Your task to perform on an android device: open app "LiveIn - Share Your Moment" (install if not already installed) Image 0: 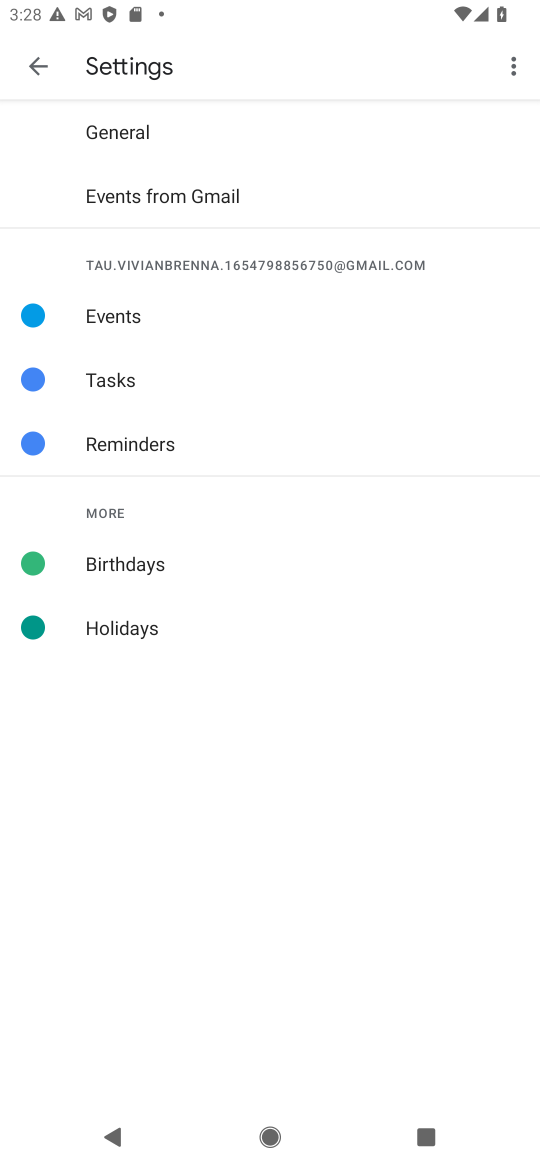
Step 0: press home button
Your task to perform on an android device: open app "LiveIn - Share Your Moment" (install if not already installed) Image 1: 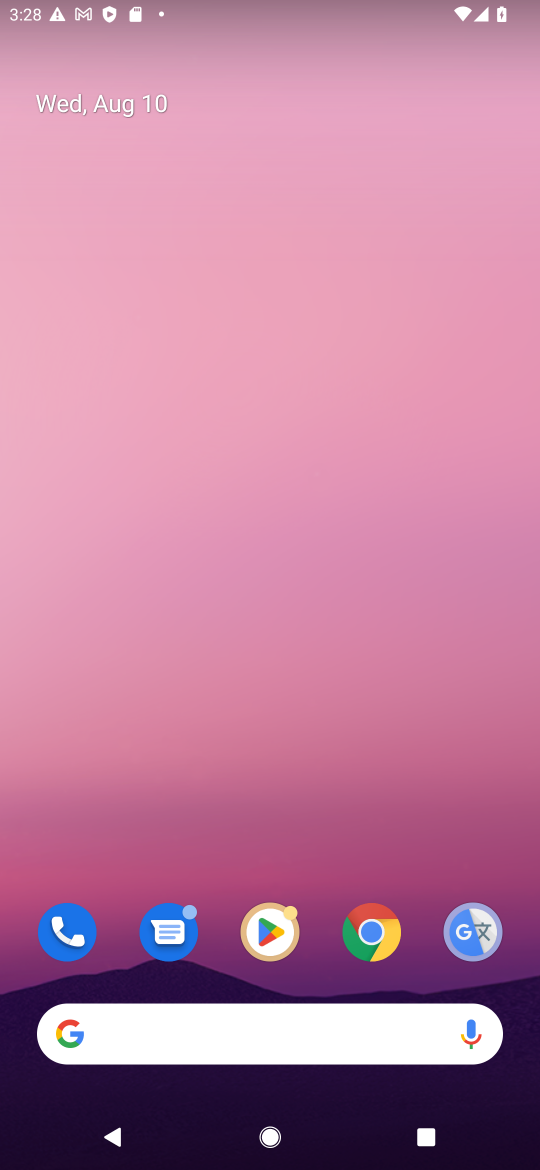
Step 1: drag from (272, 828) to (354, 180)
Your task to perform on an android device: open app "LiveIn - Share Your Moment" (install if not already installed) Image 2: 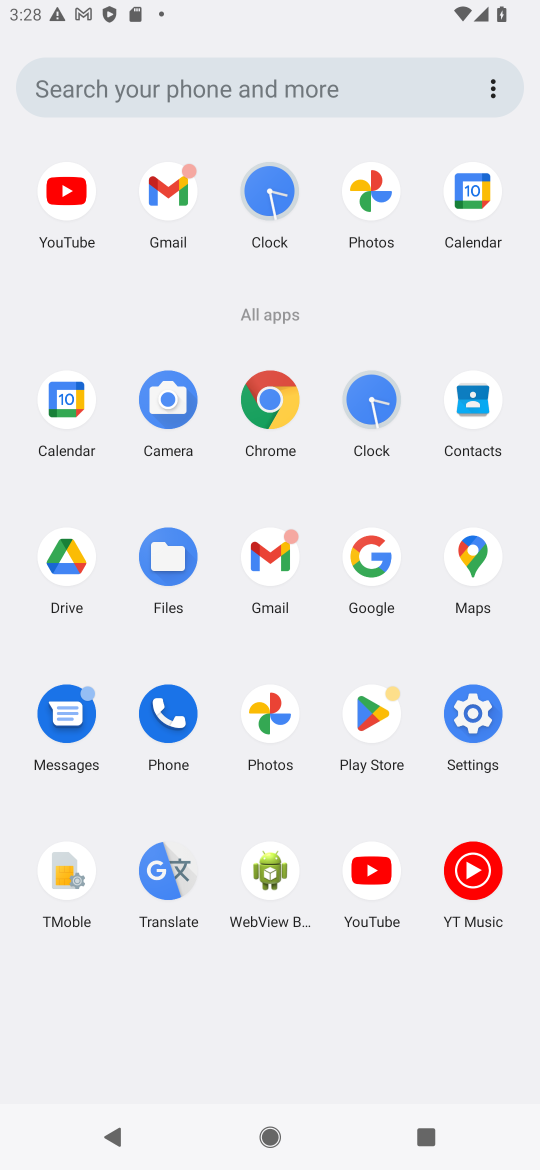
Step 2: click (363, 705)
Your task to perform on an android device: open app "LiveIn - Share Your Moment" (install if not already installed) Image 3: 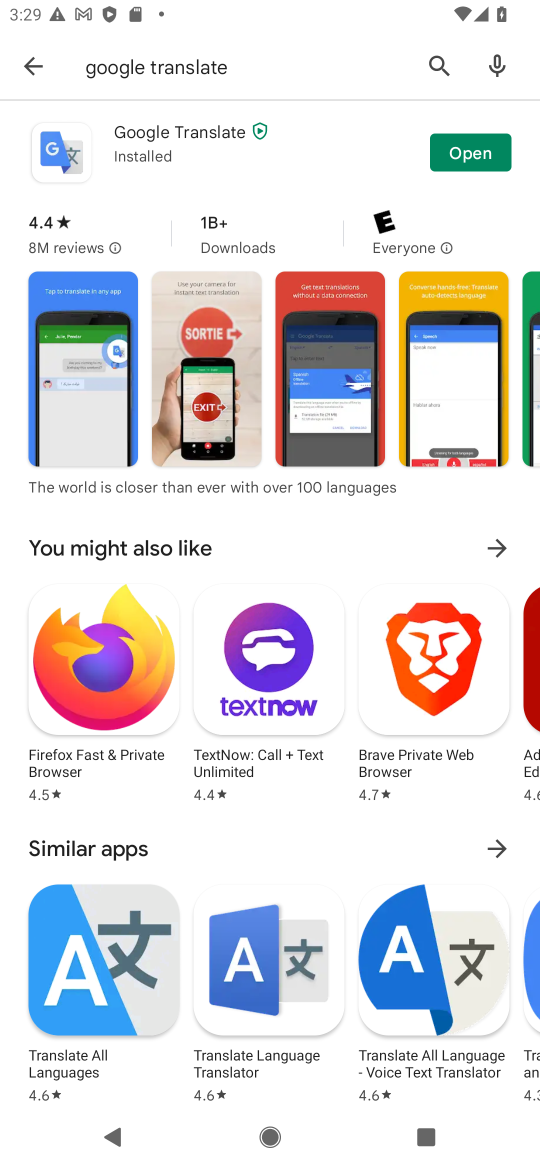
Step 3: click (40, 90)
Your task to perform on an android device: open app "LiveIn - Share Your Moment" (install if not already installed) Image 4: 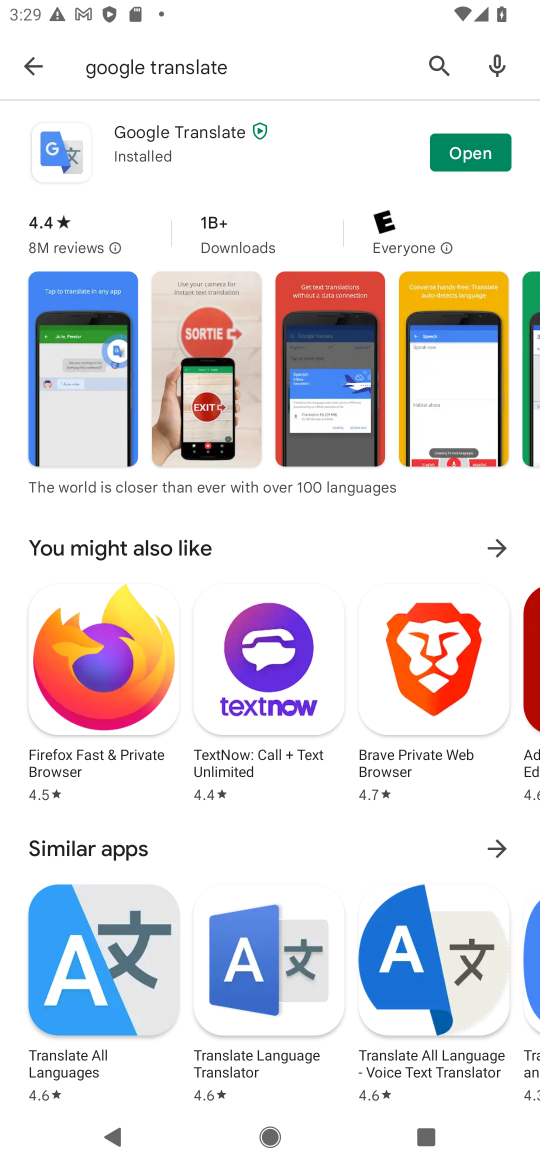
Step 4: click (31, 53)
Your task to perform on an android device: open app "LiveIn - Share Your Moment" (install if not already installed) Image 5: 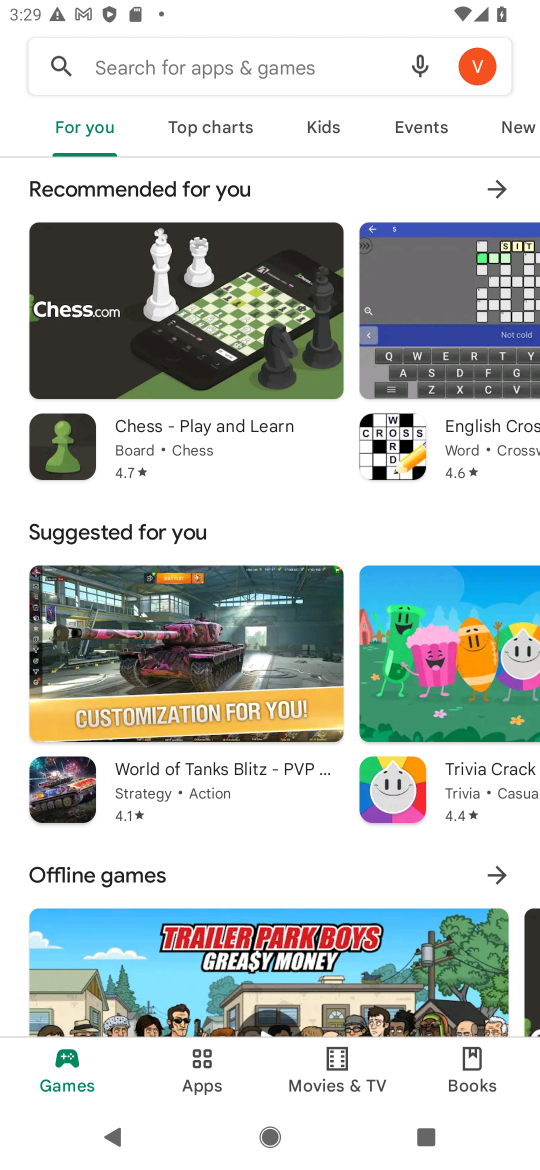
Step 5: click (187, 61)
Your task to perform on an android device: open app "LiveIn - Share Your Moment" (install if not already installed) Image 6: 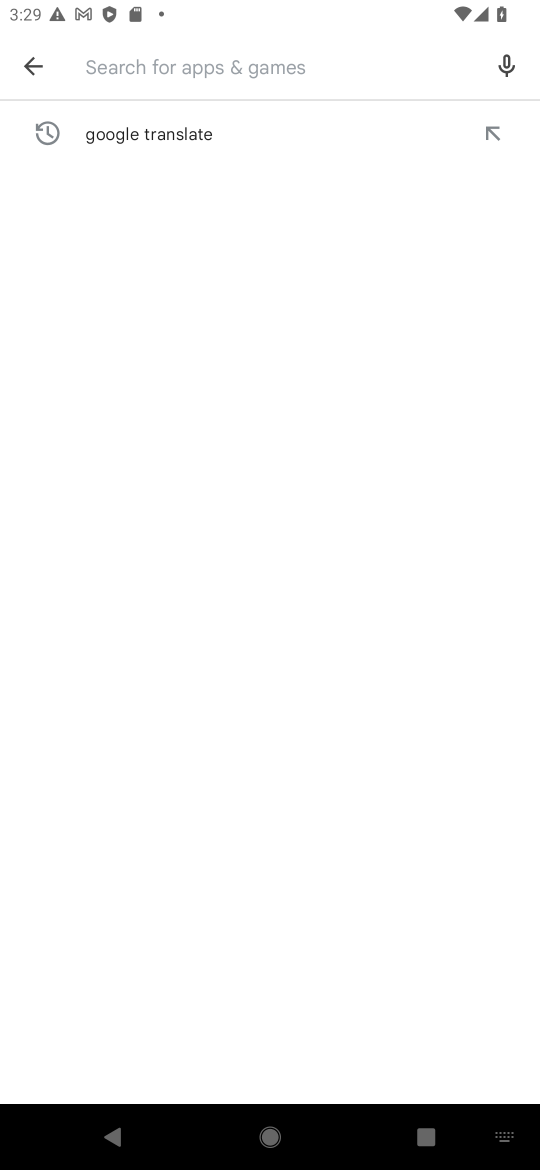
Step 6: type "LiveIn - Share Your Moment"
Your task to perform on an android device: open app "LiveIn - Share Your Moment" (install if not already installed) Image 7: 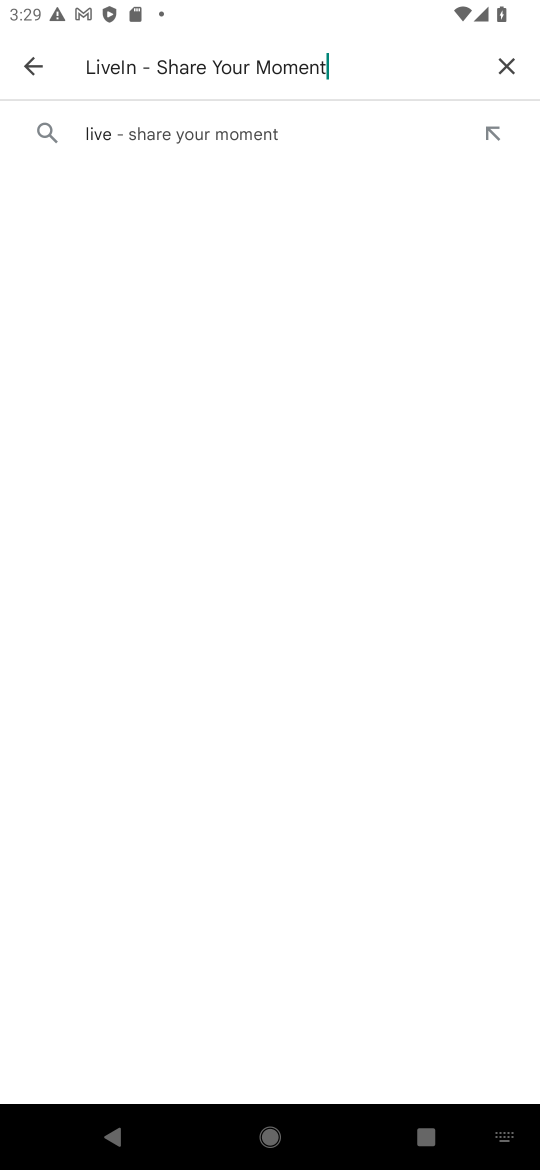
Step 7: click (274, 138)
Your task to perform on an android device: open app "LiveIn - Share Your Moment" (install if not already installed) Image 8: 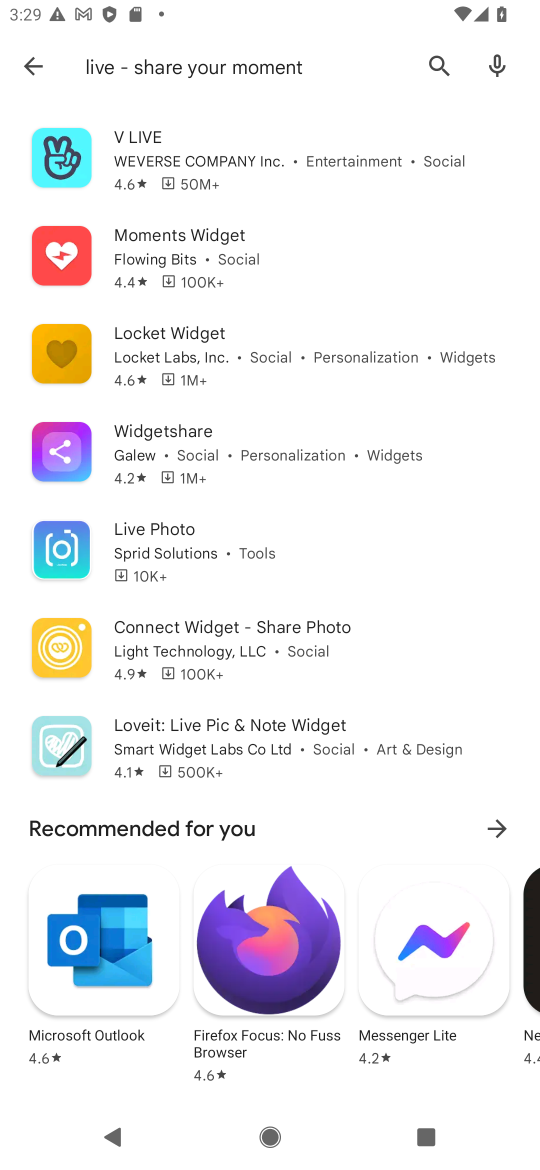
Step 8: task complete